Your task to perform on an android device: Go to eBay Image 0: 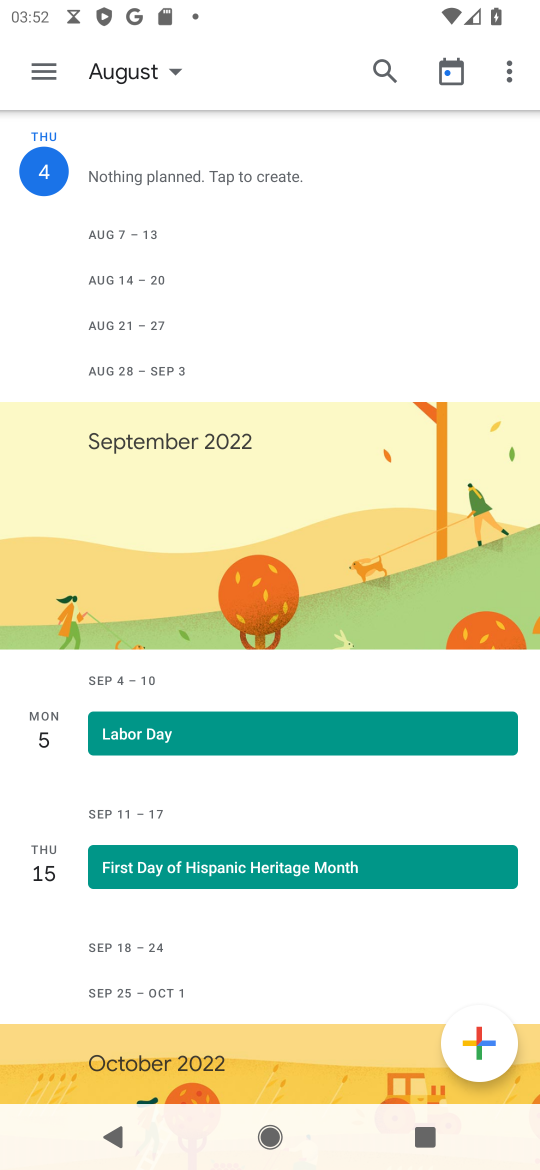
Step 0: press home button
Your task to perform on an android device: Go to eBay Image 1: 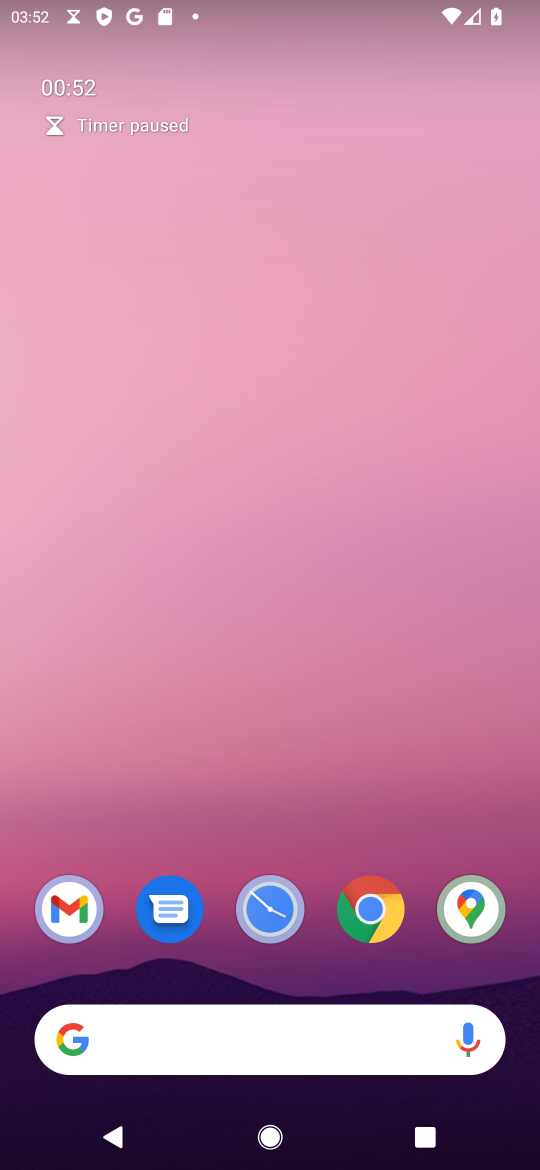
Step 1: click (370, 907)
Your task to perform on an android device: Go to eBay Image 2: 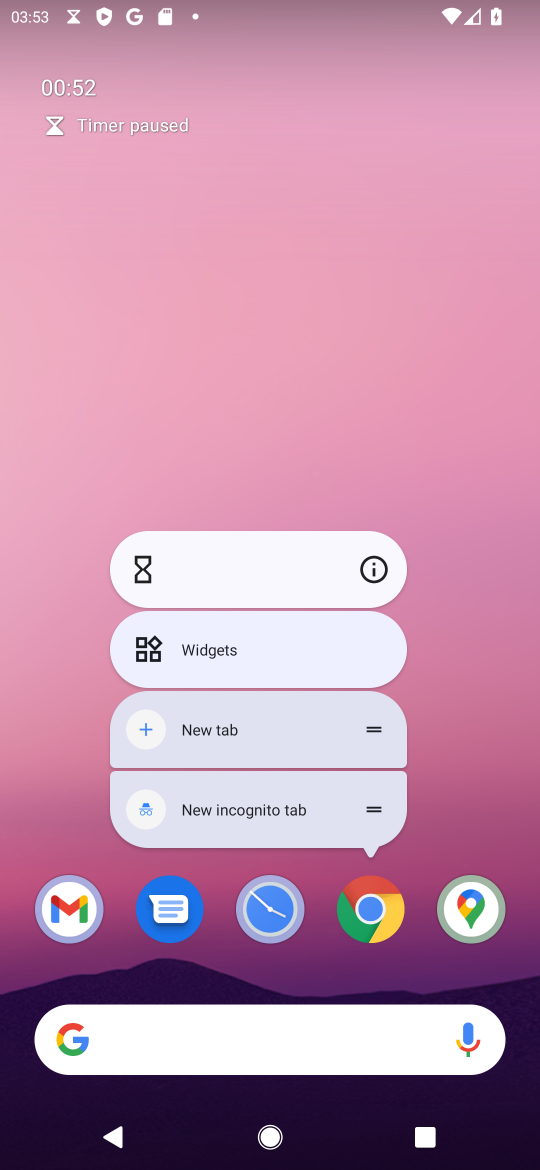
Step 2: click (363, 913)
Your task to perform on an android device: Go to eBay Image 3: 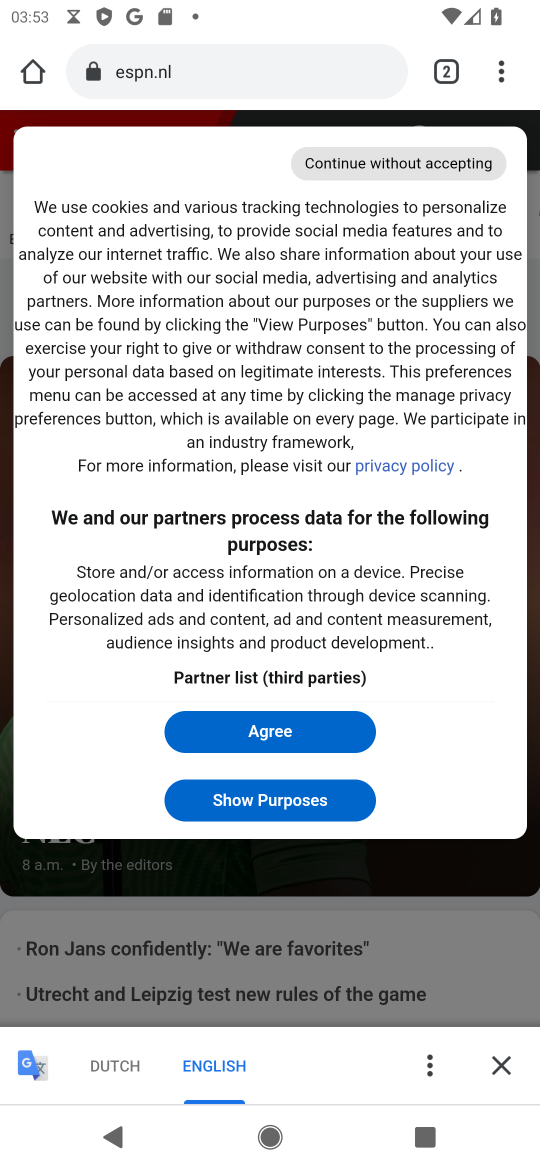
Step 3: click (497, 79)
Your task to perform on an android device: Go to eBay Image 4: 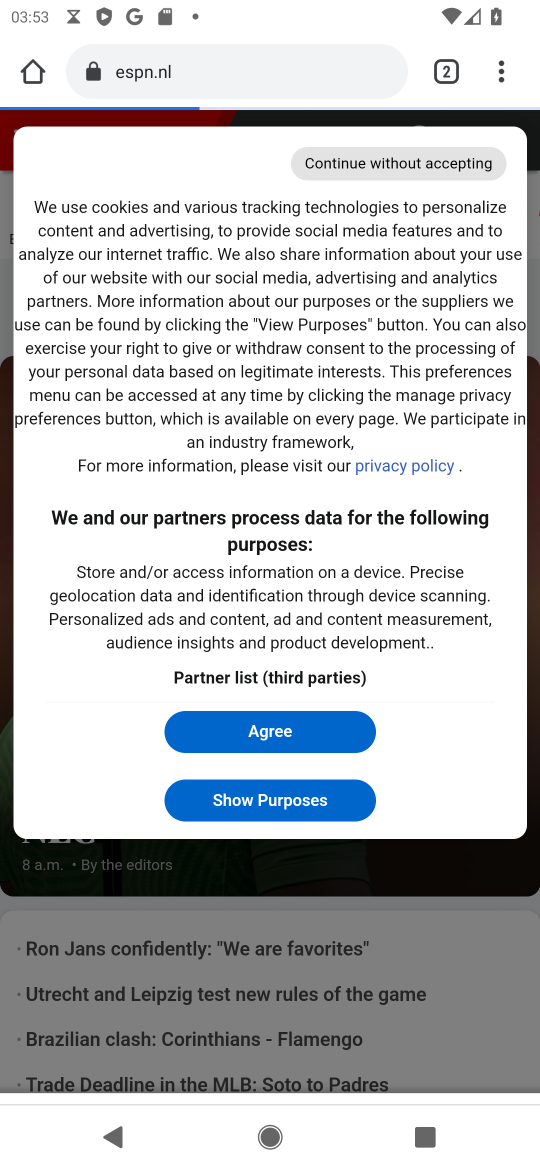
Step 4: drag from (497, 77) to (306, 220)
Your task to perform on an android device: Go to eBay Image 5: 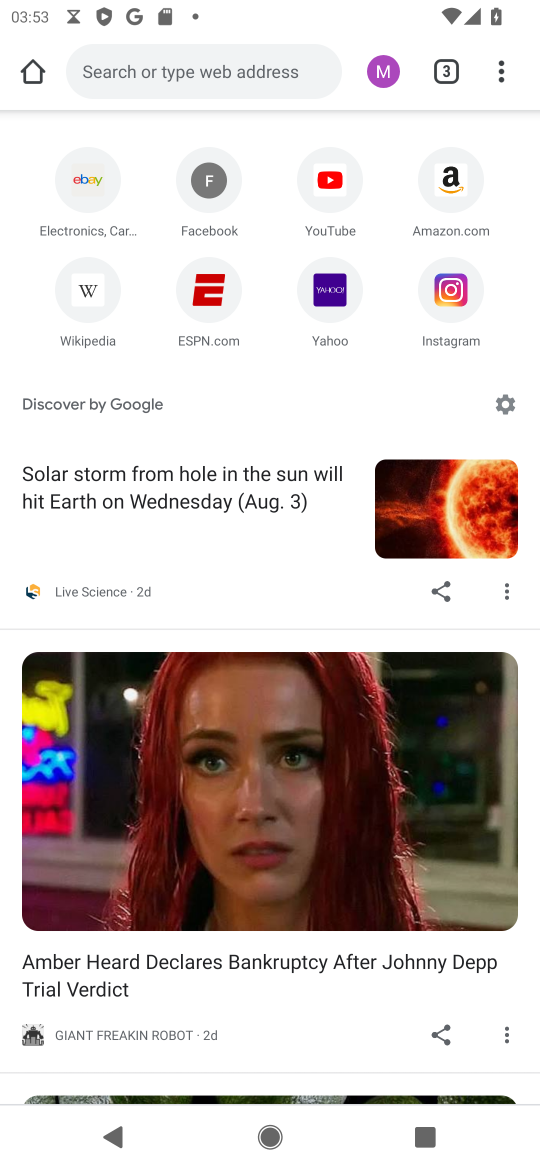
Step 5: click (84, 186)
Your task to perform on an android device: Go to eBay Image 6: 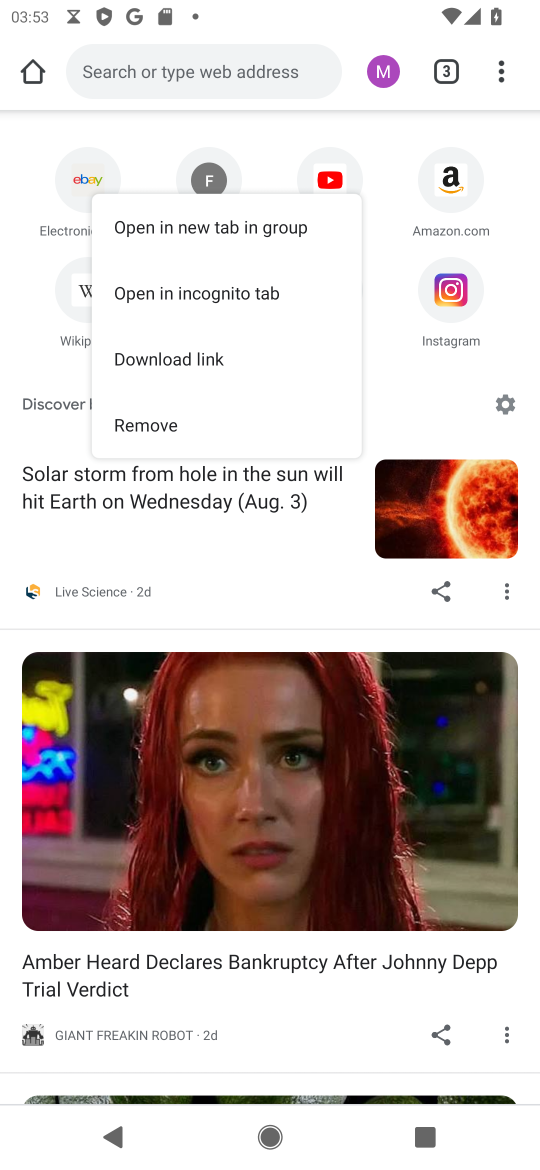
Step 6: click (87, 182)
Your task to perform on an android device: Go to eBay Image 7: 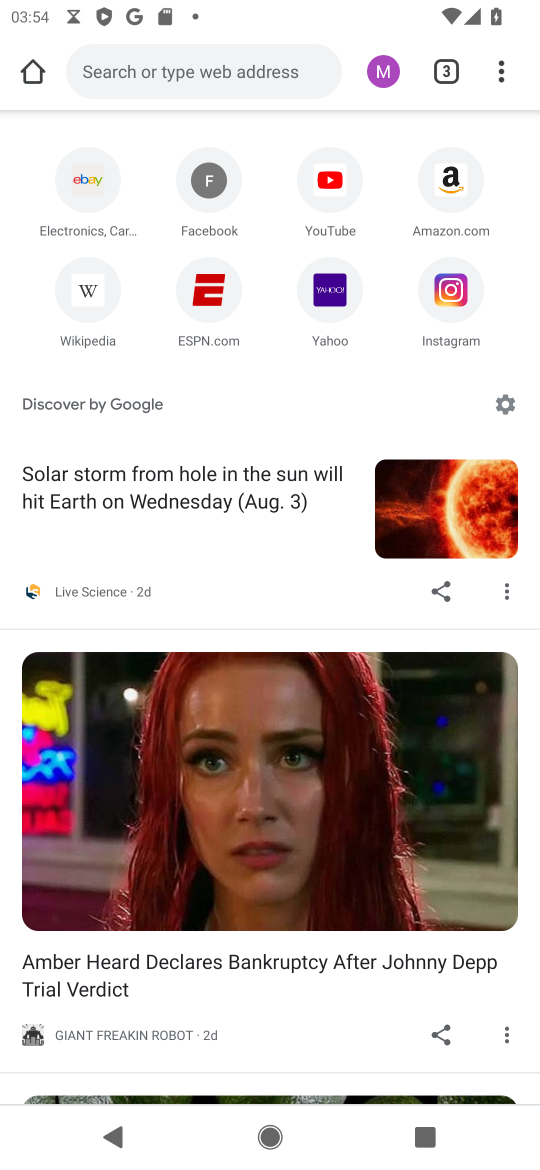
Step 7: click (89, 179)
Your task to perform on an android device: Go to eBay Image 8: 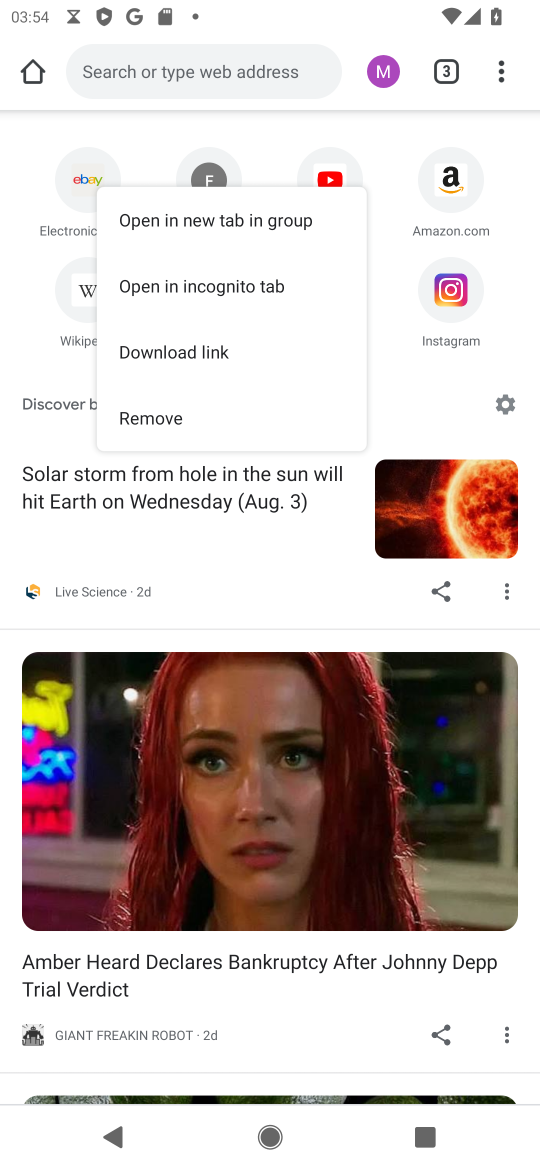
Step 8: click (81, 175)
Your task to perform on an android device: Go to eBay Image 9: 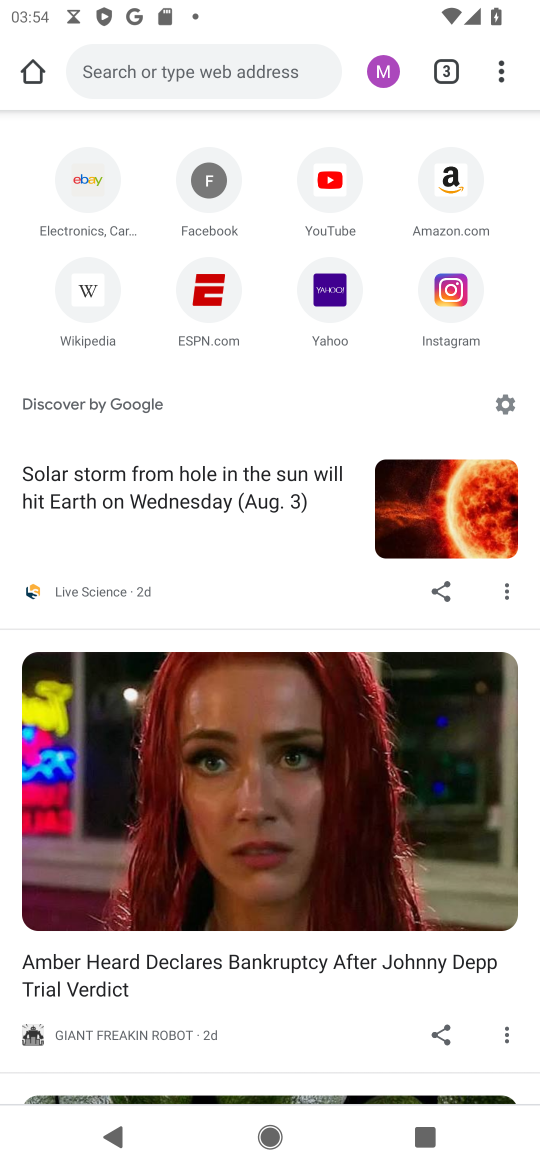
Step 9: click (87, 190)
Your task to perform on an android device: Go to eBay Image 10: 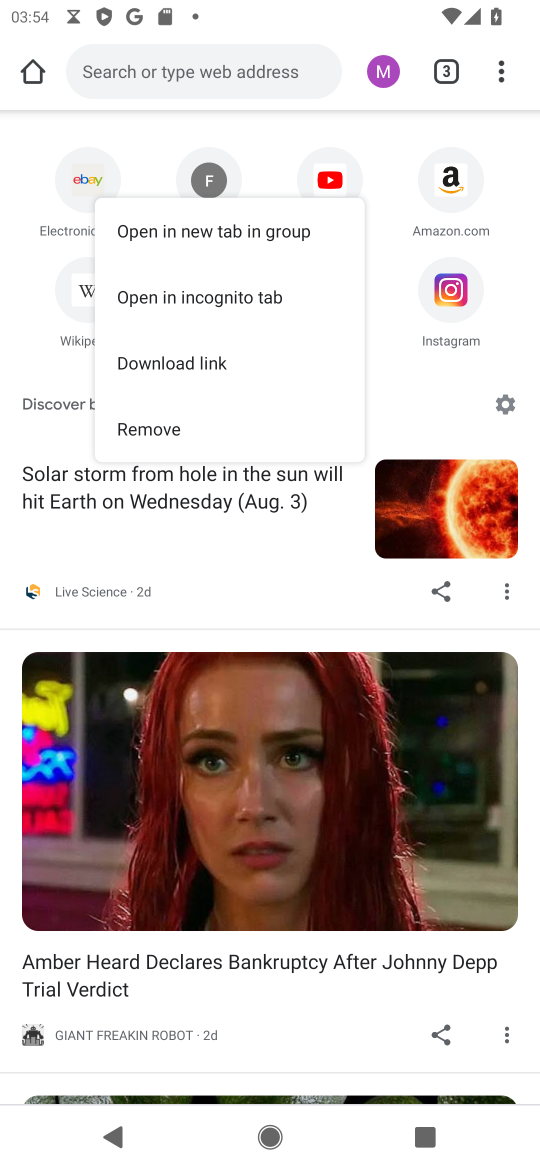
Step 10: click (78, 179)
Your task to perform on an android device: Go to eBay Image 11: 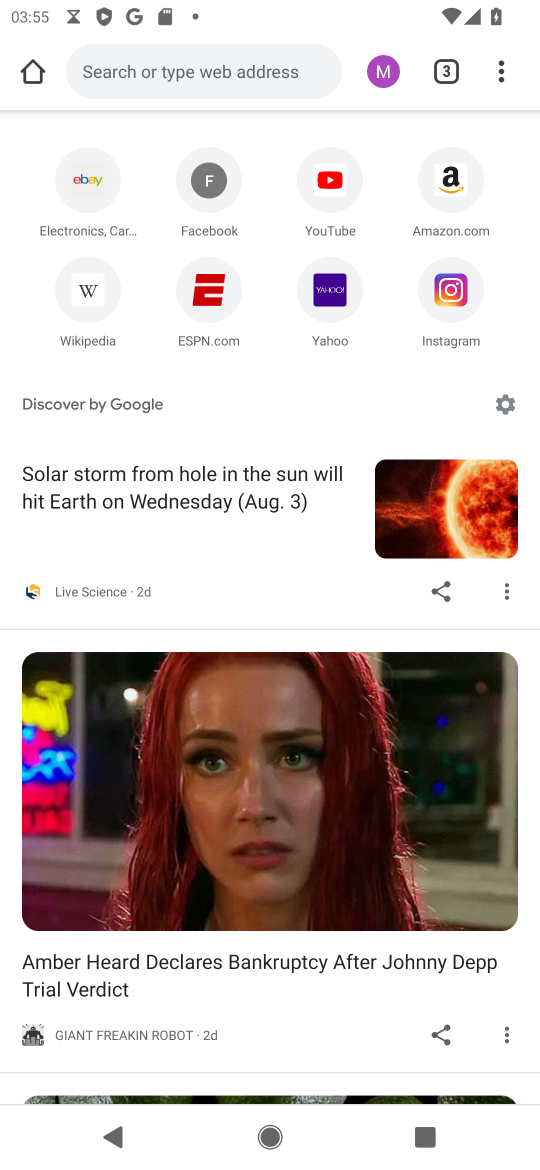
Step 11: click (74, 179)
Your task to perform on an android device: Go to eBay Image 12: 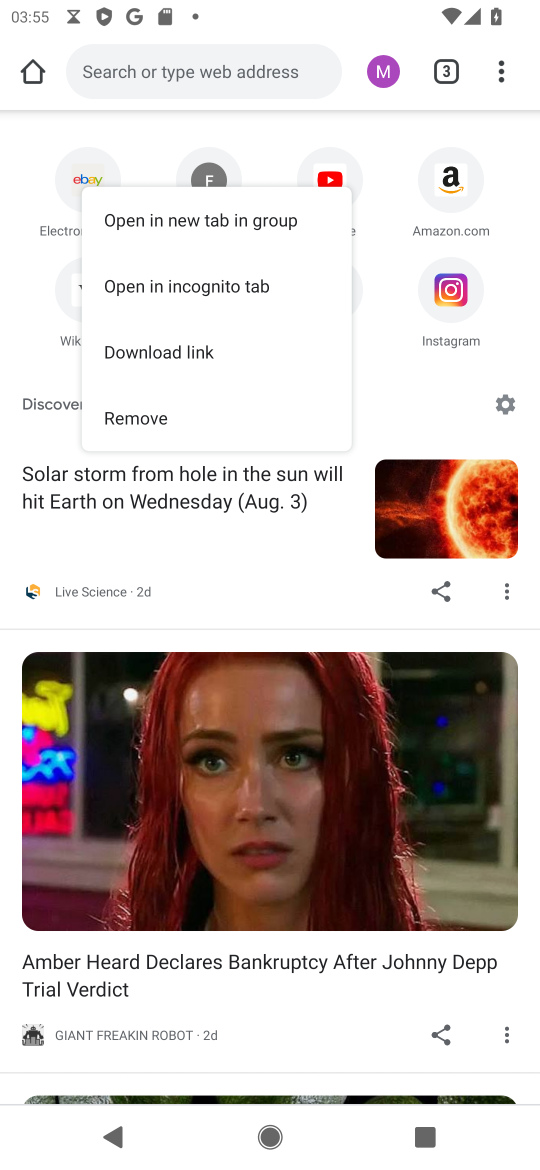
Step 12: click (91, 177)
Your task to perform on an android device: Go to eBay Image 13: 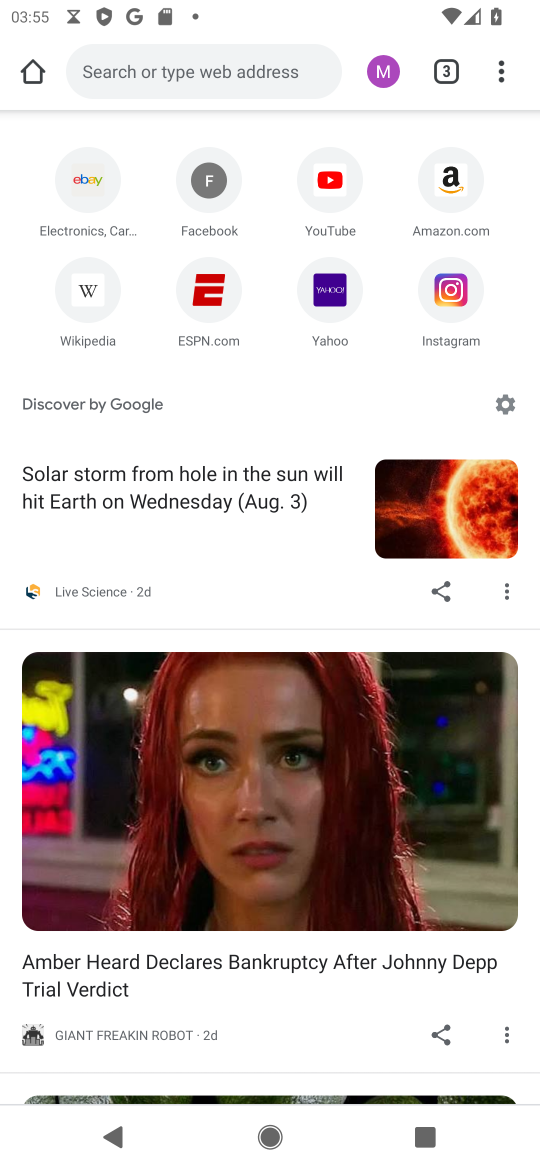
Step 13: click (77, 182)
Your task to perform on an android device: Go to eBay Image 14: 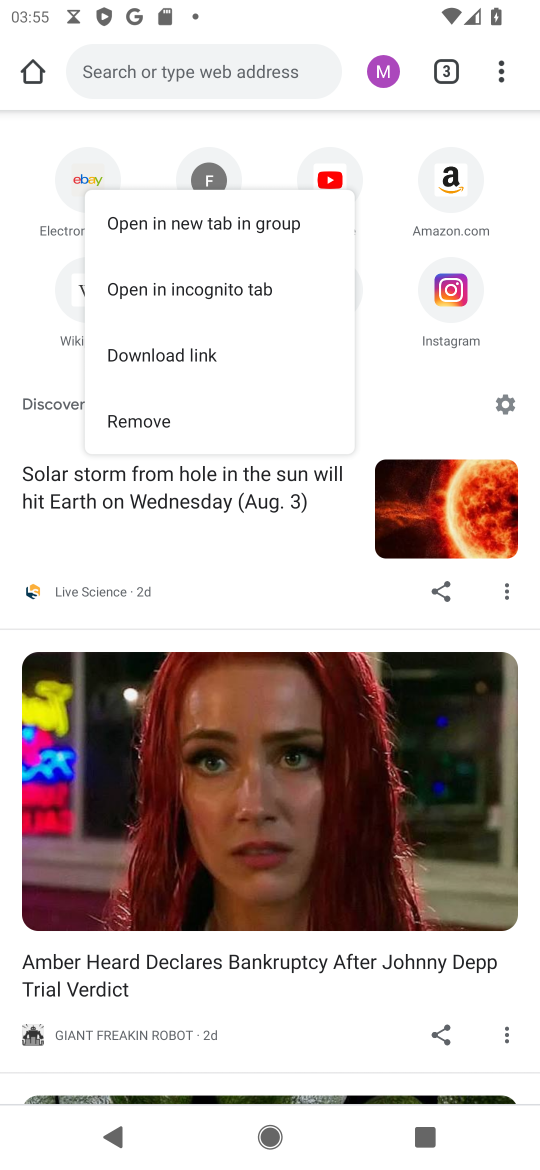
Step 14: click (140, 226)
Your task to perform on an android device: Go to eBay Image 15: 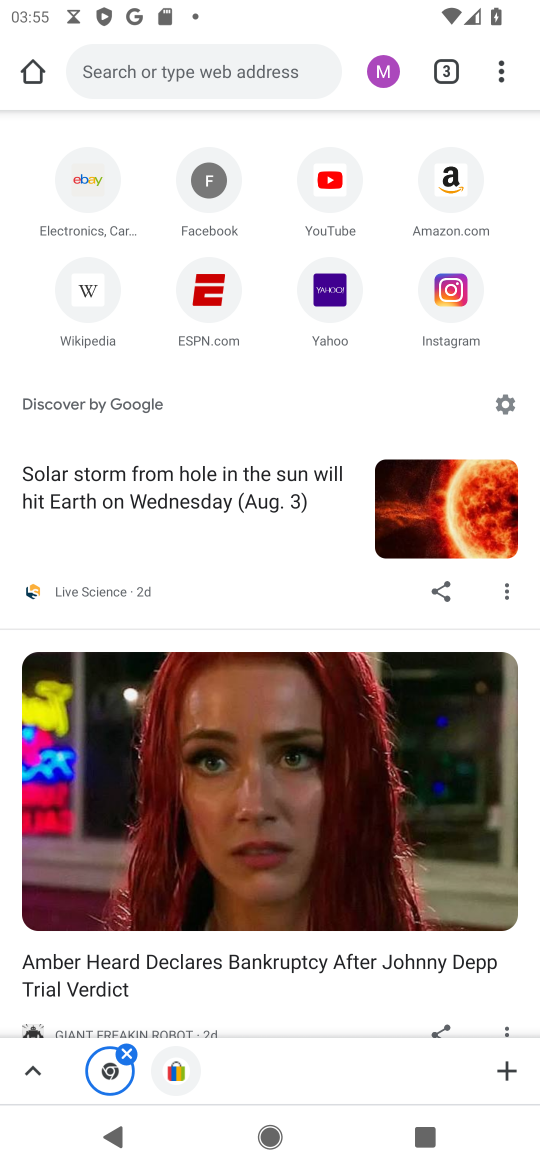
Step 15: click (84, 179)
Your task to perform on an android device: Go to eBay Image 16: 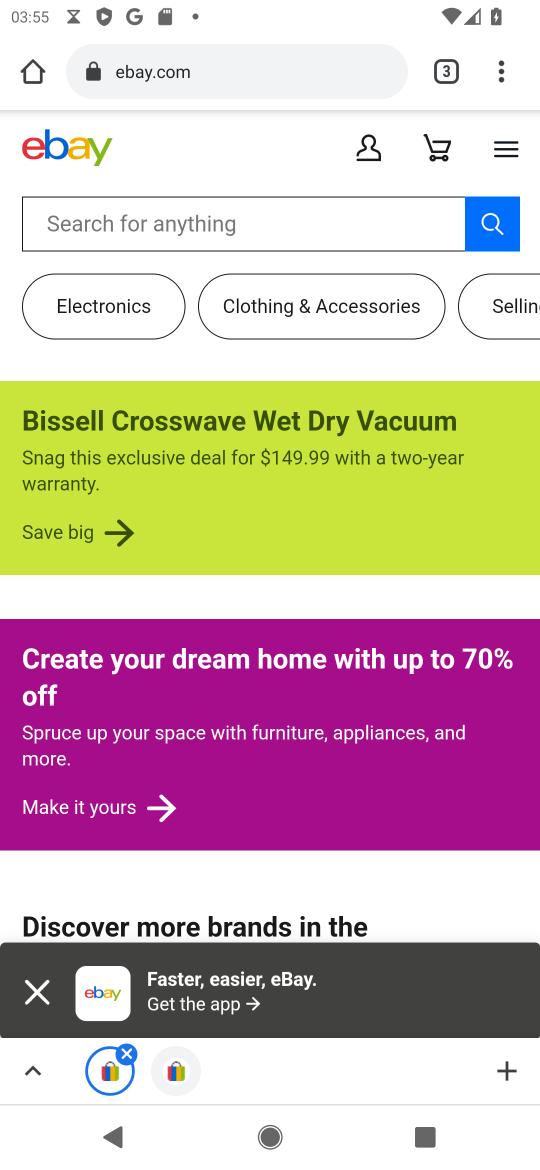
Step 16: task complete